Your task to perform on an android device: make emails show in primary in the gmail app Image 0: 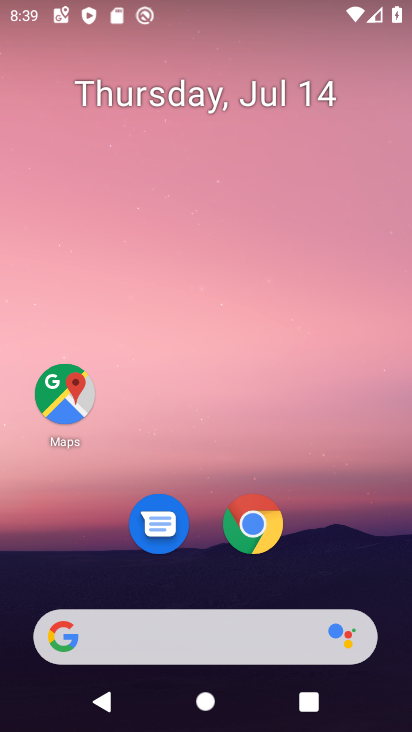
Step 0: drag from (350, 547) to (326, 120)
Your task to perform on an android device: make emails show in primary in the gmail app Image 1: 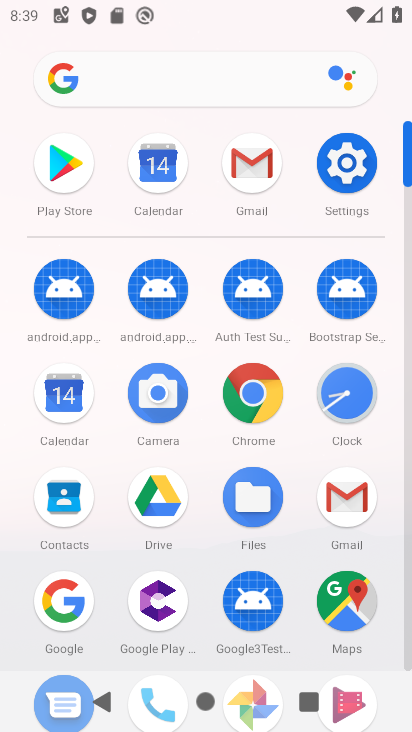
Step 1: click (254, 157)
Your task to perform on an android device: make emails show in primary in the gmail app Image 2: 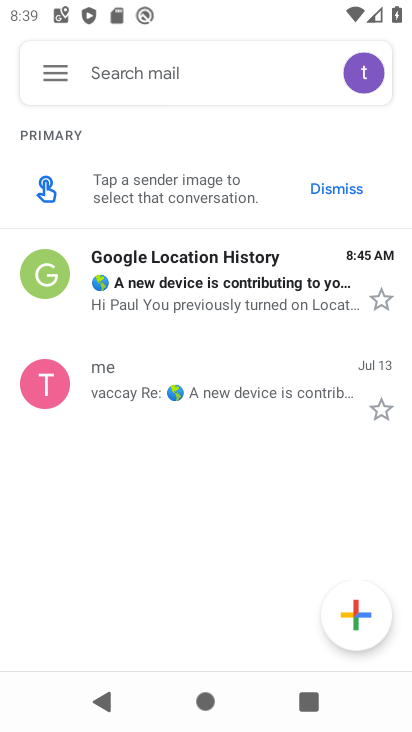
Step 2: click (46, 57)
Your task to perform on an android device: make emails show in primary in the gmail app Image 3: 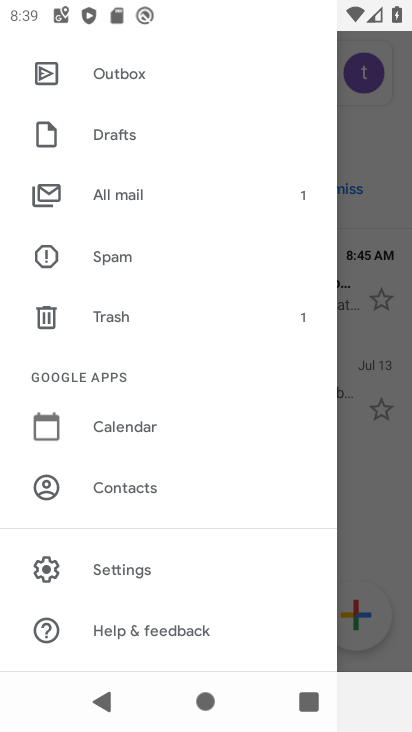
Step 3: click (129, 568)
Your task to perform on an android device: make emails show in primary in the gmail app Image 4: 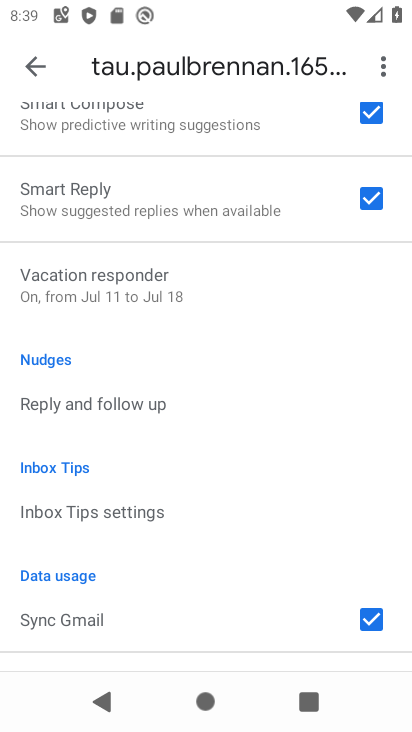
Step 4: drag from (213, 264) to (236, 523)
Your task to perform on an android device: make emails show in primary in the gmail app Image 5: 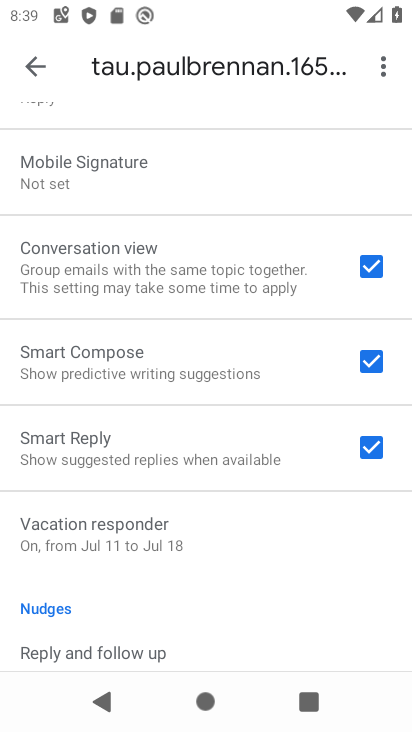
Step 5: drag from (214, 184) to (259, 459)
Your task to perform on an android device: make emails show in primary in the gmail app Image 6: 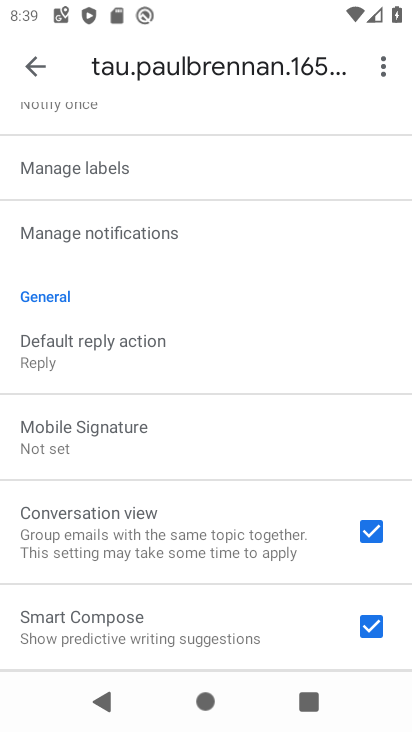
Step 6: drag from (221, 190) to (293, 508)
Your task to perform on an android device: make emails show in primary in the gmail app Image 7: 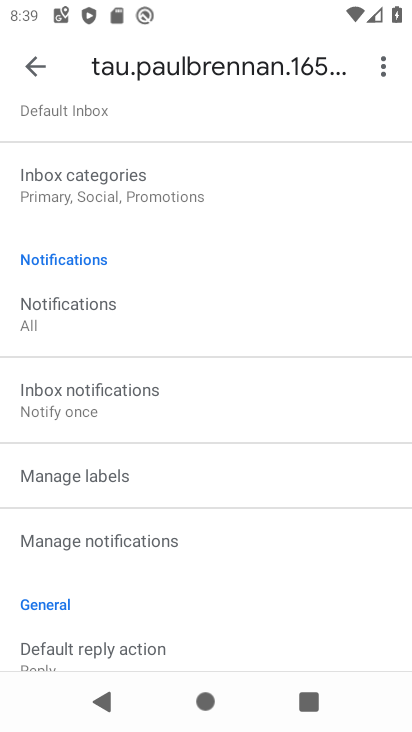
Step 7: drag from (222, 151) to (243, 441)
Your task to perform on an android device: make emails show in primary in the gmail app Image 8: 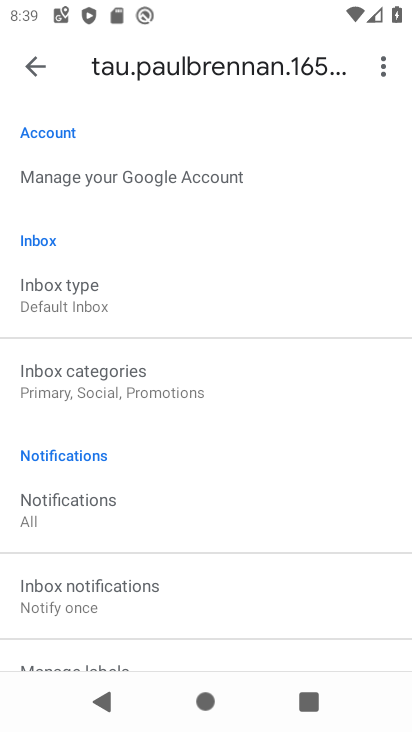
Step 8: click (96, 377)
Your task to perform on an android device: make emails show in primary in the gmail app Image 9: 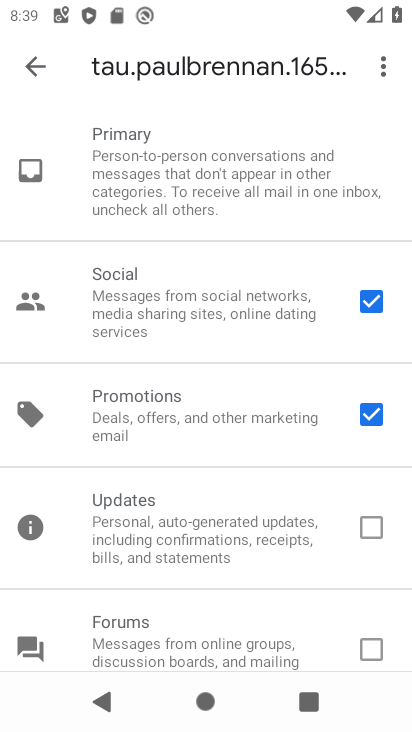
Step 9: click (375, 299)
Your task to perform on an android device: make emails show in primary in the gmail app Image 10: 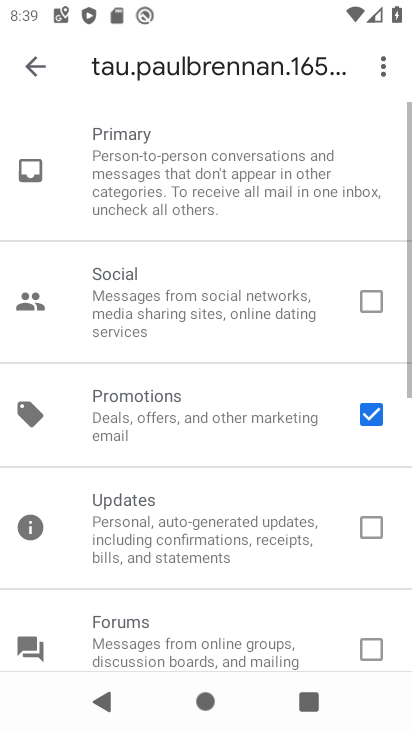
Step 10: click (374, 411)
Your task to perform on an android device: make emails show in primary in the gmail app Image 11: 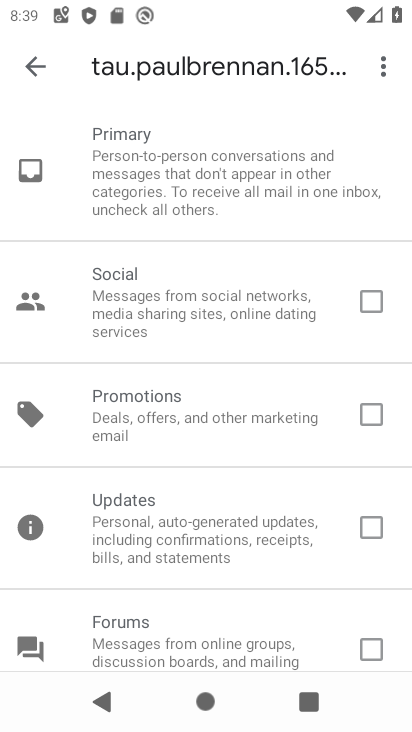
Step 11: click (40, 56)
Your task to perform on an android device: make emails show in primary in the gmail app Image 12: 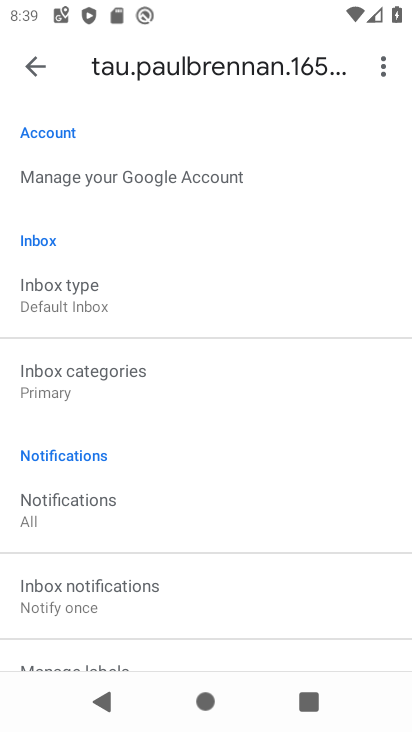
Step 12: task complete